Your task to perform on an android device: What's the weather going to be this weekend? Image 0: 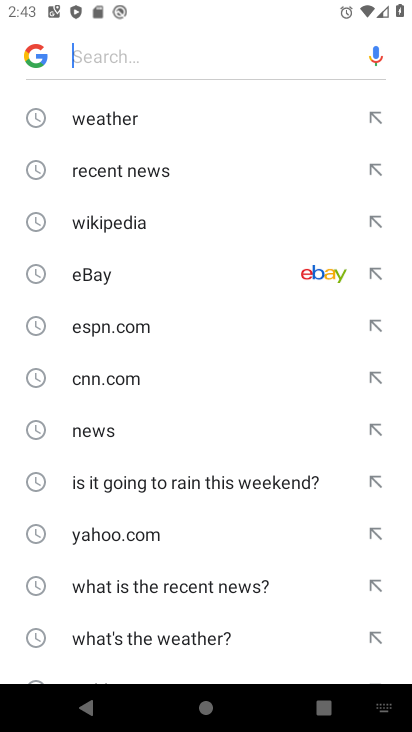
Step 0: press home button
Your task to perform on an android device: What's the weather going to be this weekend? Image 1: 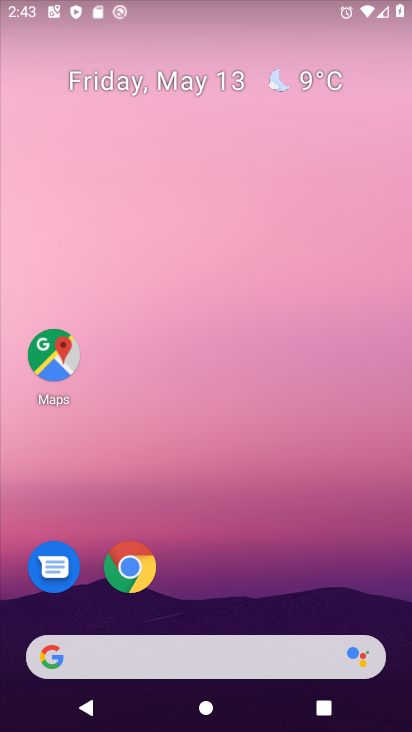
Step 1: click (358, 70)
Your task to perform on an android device: What's the weather going to be this weekend? Image 2: 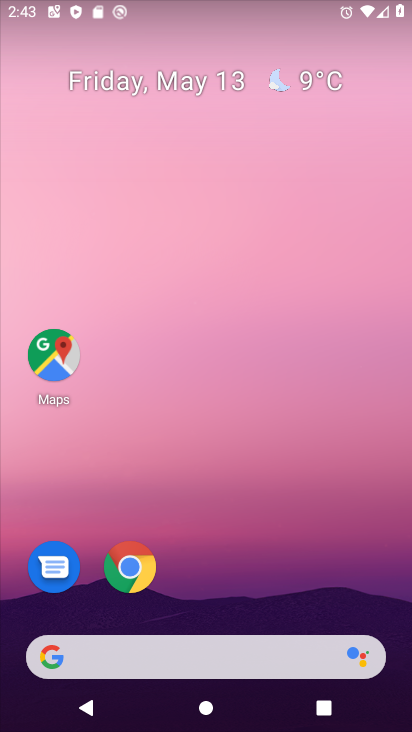
Step 2: click (316, 89)
Your task to perform on an android device: What's the weather going to be this weekend? Image 3: 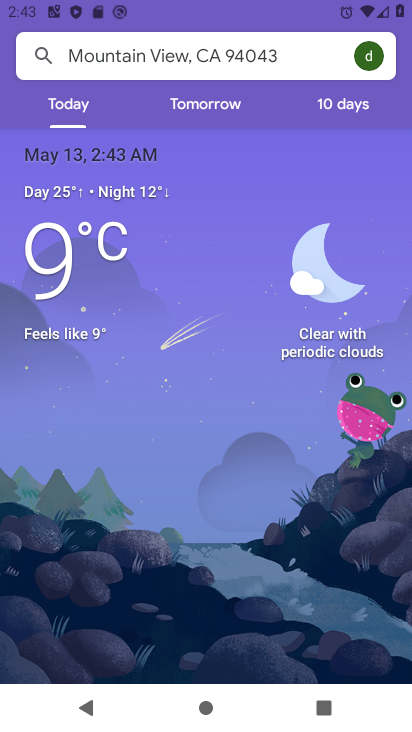
Step 3: click (363, 114)
Your task to perform on an android device: What's the weather going to be this weekend? Image 4: 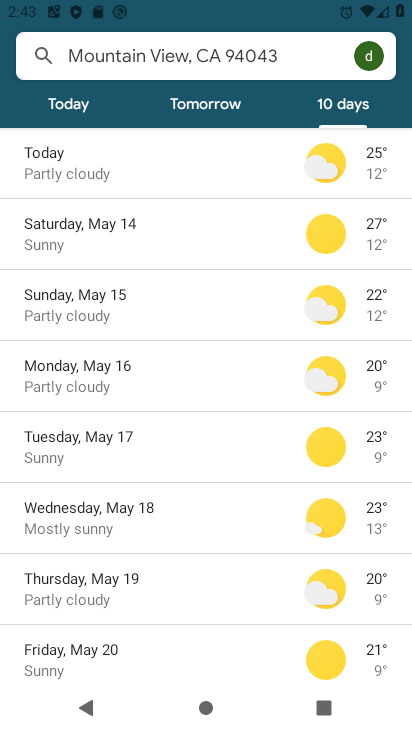
Step 4: task complete